Your task to perform on an android device: add a contact Image 0: 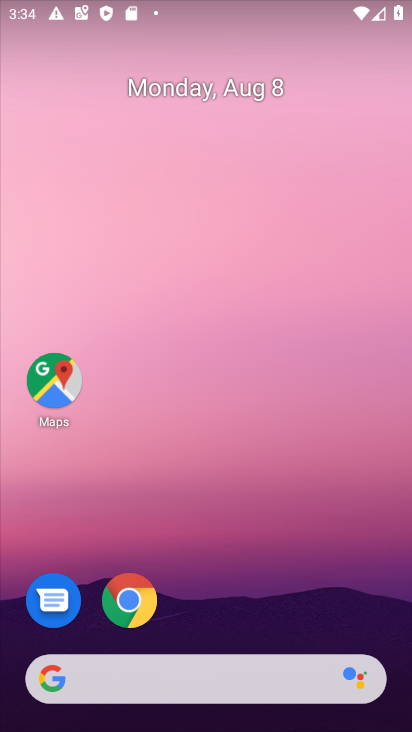
Step 0: drag from (393, 704) to (364, 217)
Your task to perform on an android device: add a contact Image 1: 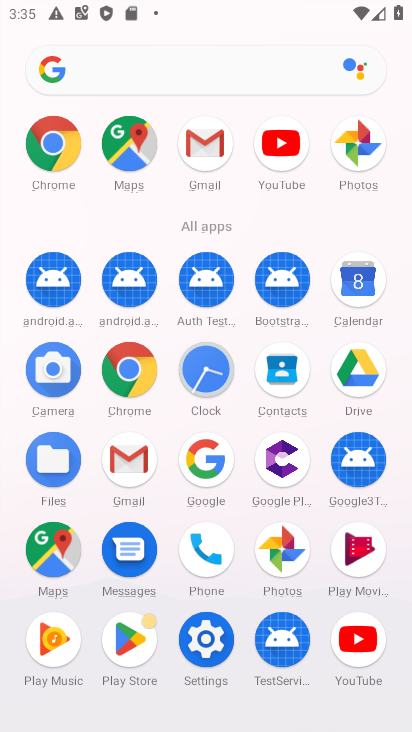
Step 1: click (285, 382)
Your task to perform on an android device: add a contact Image 2: 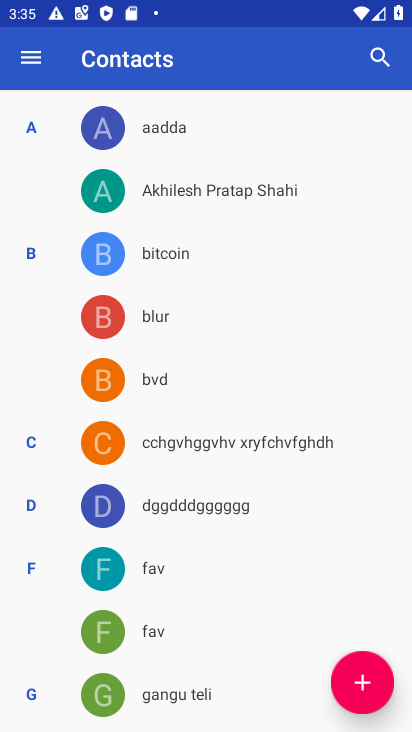
Step 2: click (354, 682)
Your task to perform on an android device: add a contact Image 3: 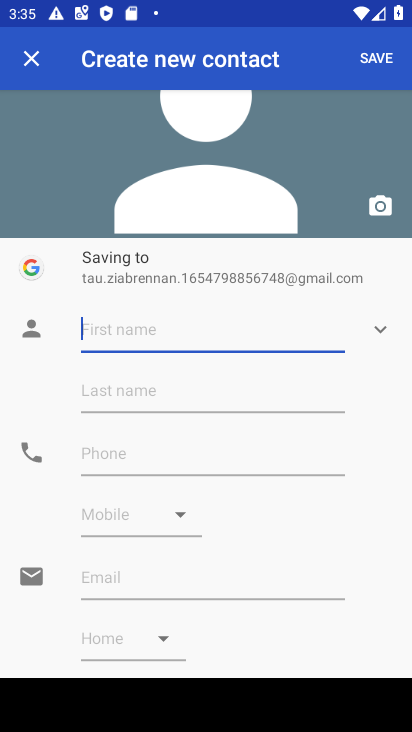
Step 3: type "fdgfcvcxgvgv"
Your task to perform on an android device: add a contact Image 4: 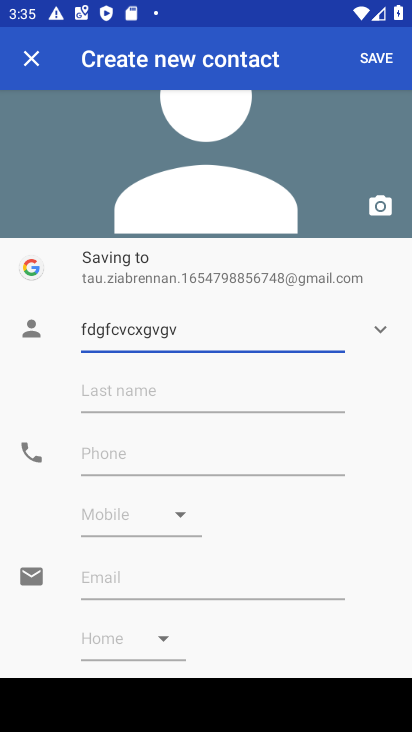
Step 4: click (154, 403)
Your task to perform on an android device: add a contact Image 5: 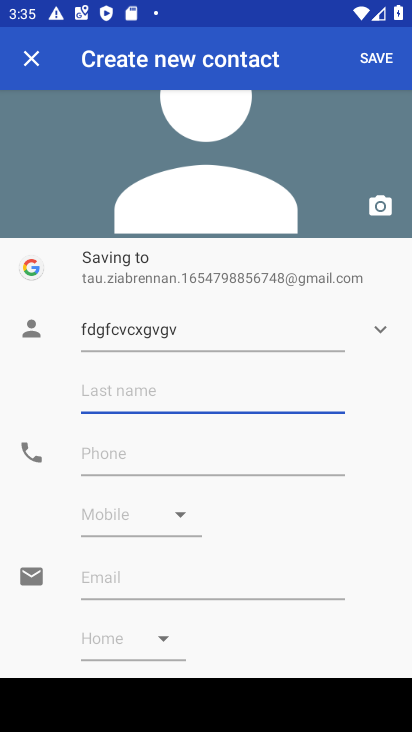
Step 5: type "fcgfvhfcdxfg"
Your task to perform on an android device: add a contact Image 6: 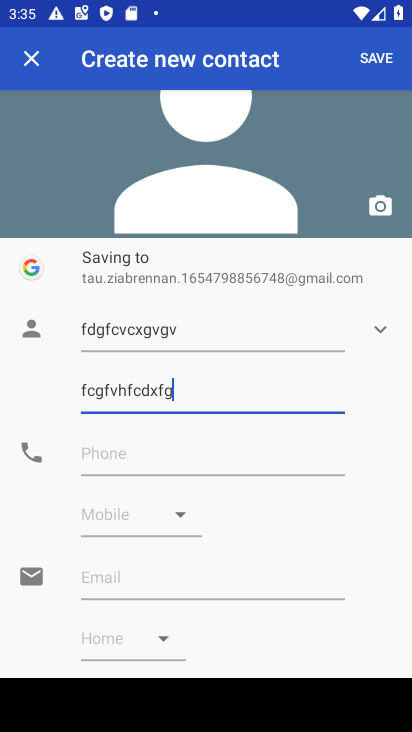
Step 6: click (127, 461)
Your task to perform on an android device: add a contact Image 7: 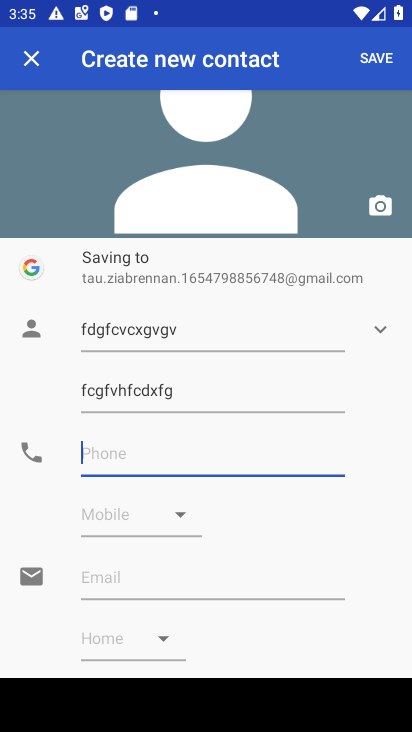
Step 7: type "444545545656676"
Your task to perform on an android device: add a contact Image 8: 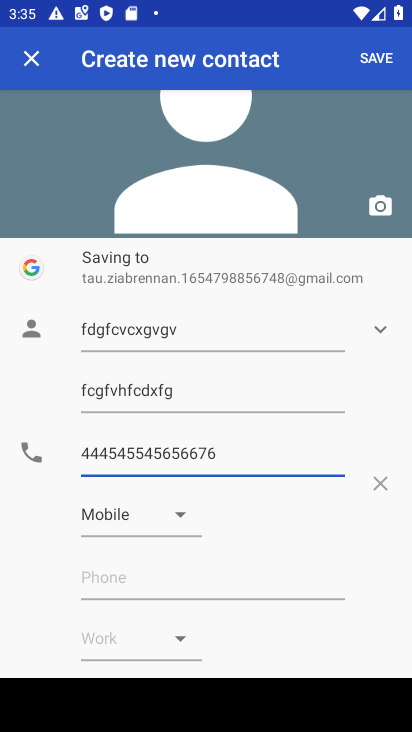
Step 8: click (374, 52)
Your task to perform on an android device: add a contact Image 9: 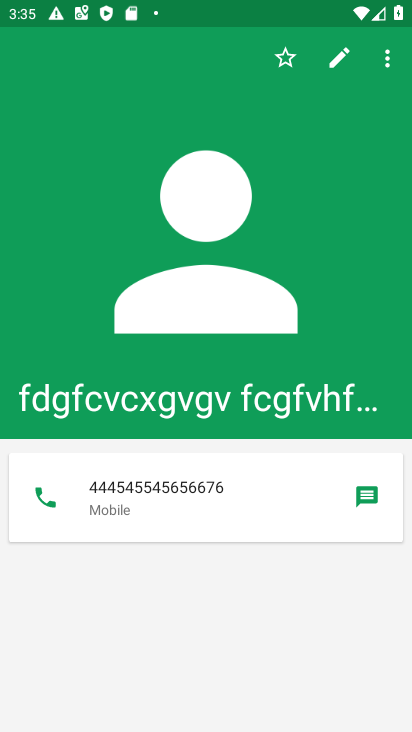
Step 9: task complete